Your task to perform on an android device: Go to Google Image 0: 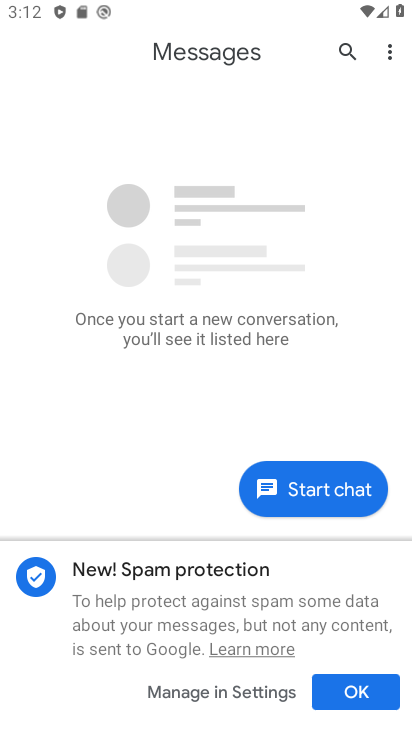
Step 0: press home button
Your task to perform on an android device: Go to Google Image 1: 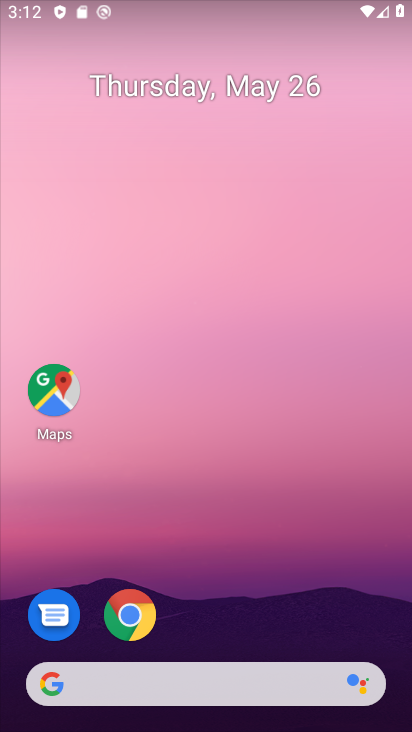
Step 1: drag from (232, 641) to (247, 60)
Your task to perform on an android device: Go to Google Image 2: 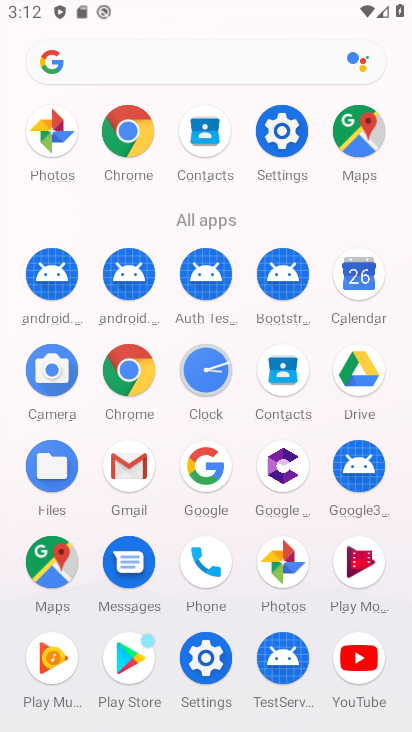
Step 2: click (210, 462)
Your task to perform on an android device: Go to Google Image 3: 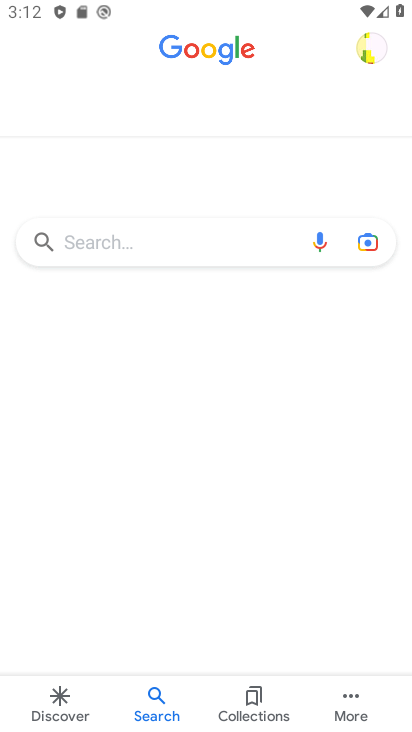
Step 3: task complete